Your task to perform on an android device: toggle sleep mode Image 0: 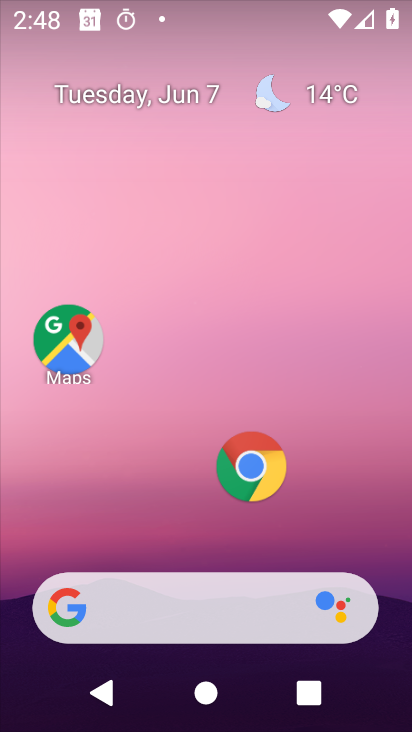
Step 0: drag from (199, 14) to (223, 571)
Your task to perform on an android device: toggle sleep mode Image 1: 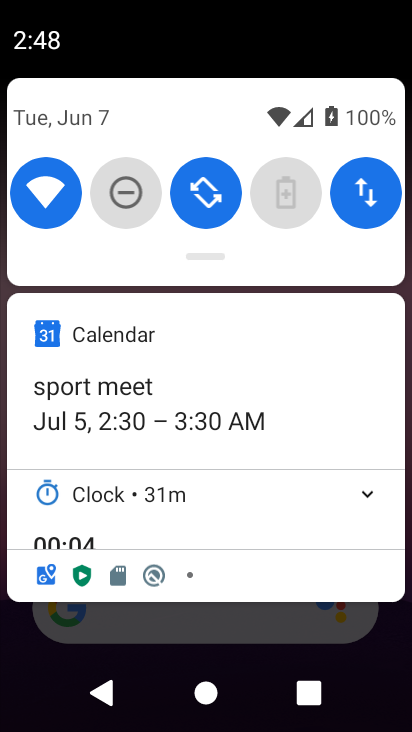
Step 1: drag from (223, 263) to (193, 664)
Your task to perform on an android device: toggle sleep mode Image 2: 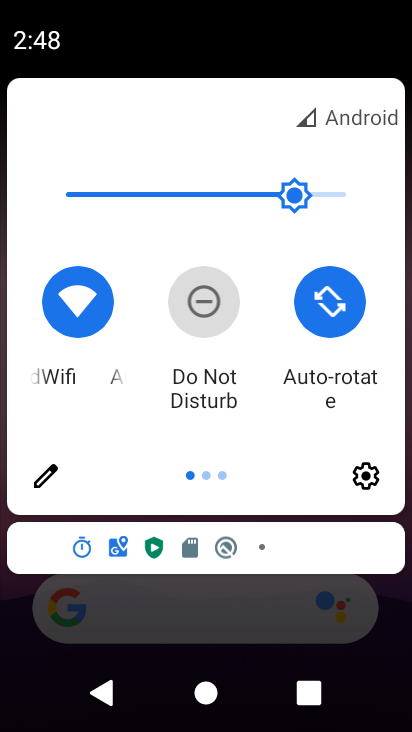
Step 2: click (49, 474)
Your task to perform on an android device: toggle sleep mode Image 3: 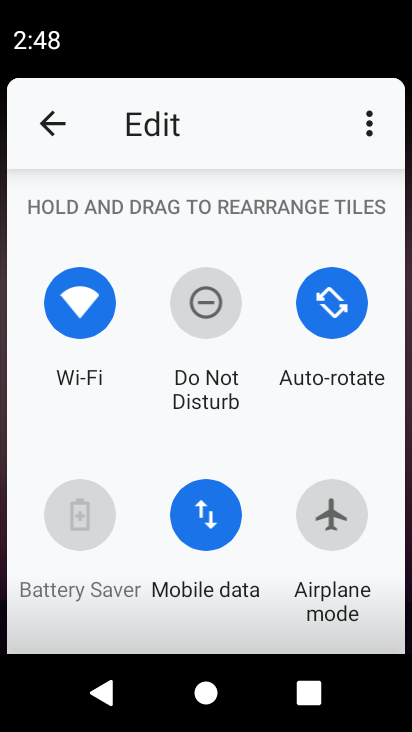
Step 3: task complete